Your task to perform on an android device: change alarm snooze length Image 0: 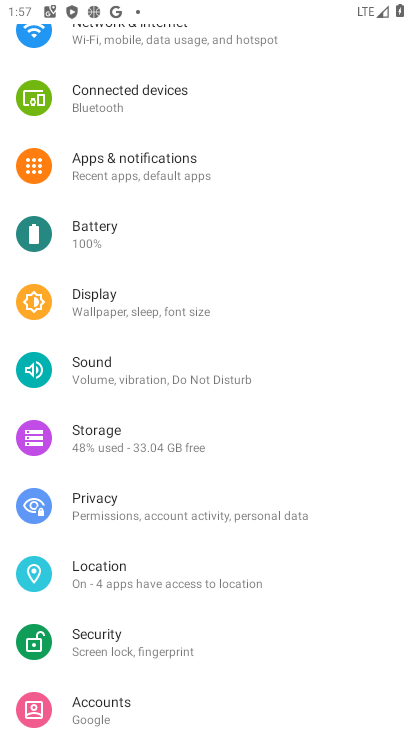
Step 0: press home button
Your task to perform on an android device: change alarm snooze length Image 1: 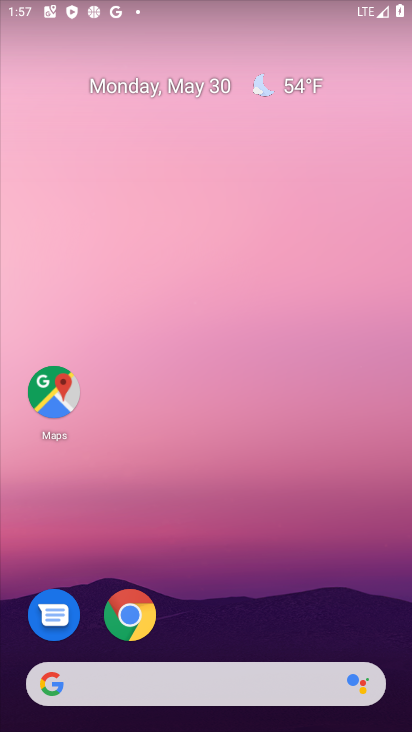
Step 1: drag from (297, 570) to (268, 106)
Your task to perform on an android device: change alarm snooze length Image 2: 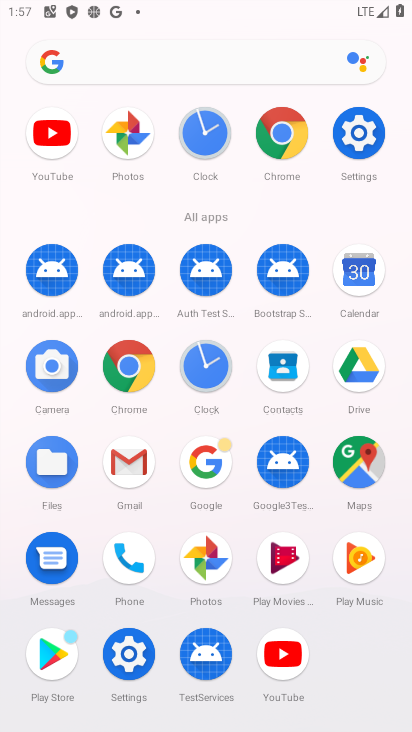
Step 2: click (196, 149)
Your task to perform on an android device: change alarm snooze length Image 3: 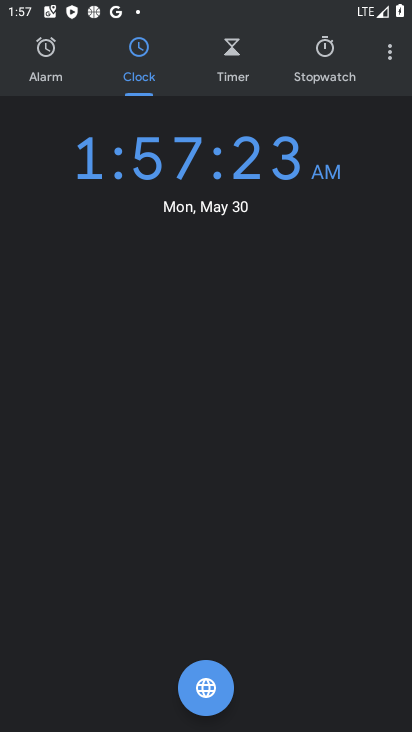
Step 3: click (378, 48)
Your task to perform on an android device: change alarm snooze length Image 4: 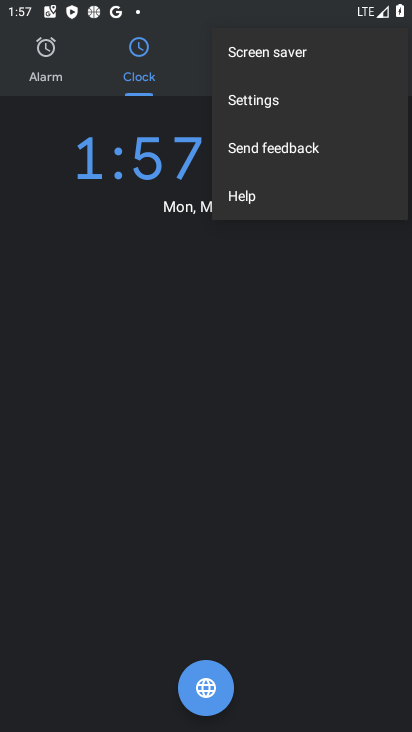
Step 4: click (260, 86)
Your task to perform on an android device: change alarm snooze length Image 5: 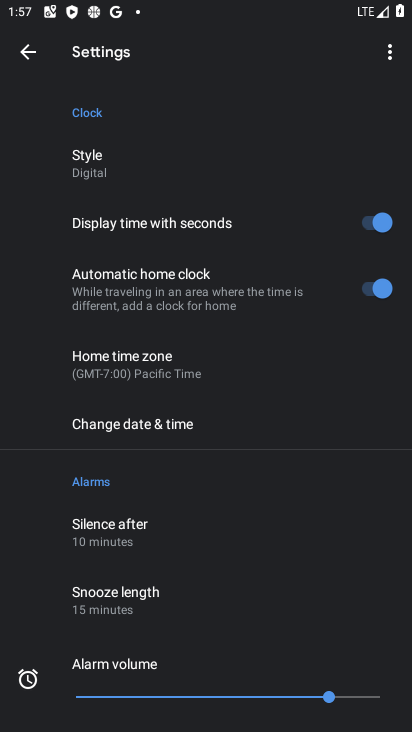
Step 5: click (208, 596)
Your task to perform on an android device: change alarm snooze length Image 6: 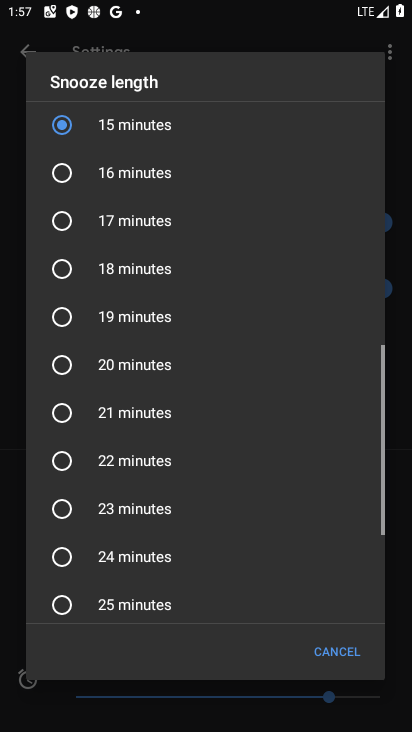
Step 6: click (147, 605)
Your task to perform on an android device: change alarm snooze length Image 7: 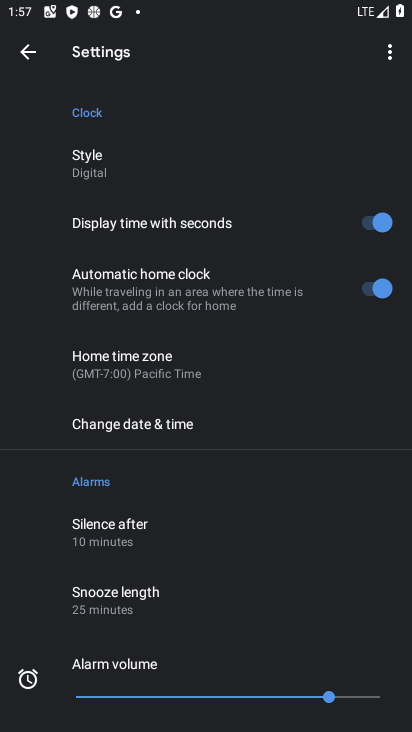
Step 7: task complete